Your task to perform on an android device: What is the price of a 12' ladder at Home Depot? Image 0: 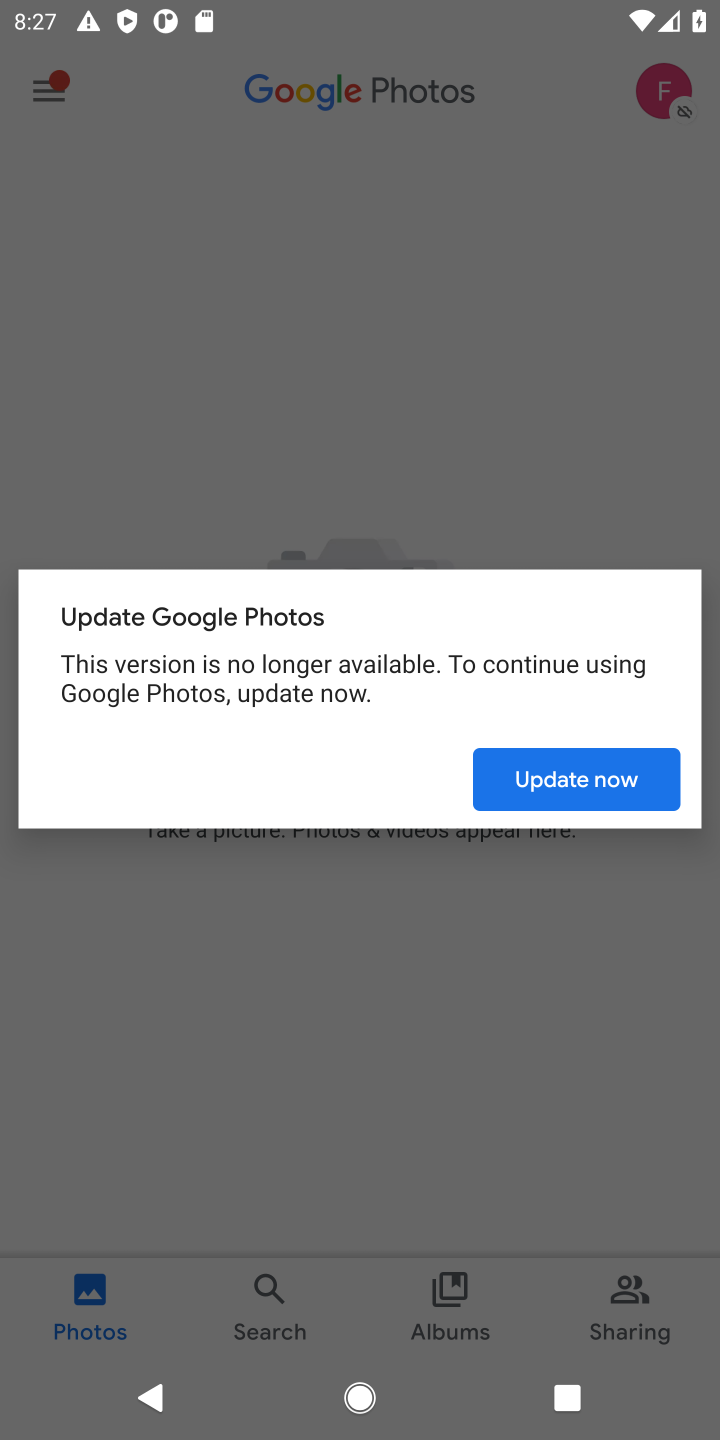
Step 0: press home button
Your task to perform on an android device: What is the price of a 12' ladder at Home Depot? Image 1: 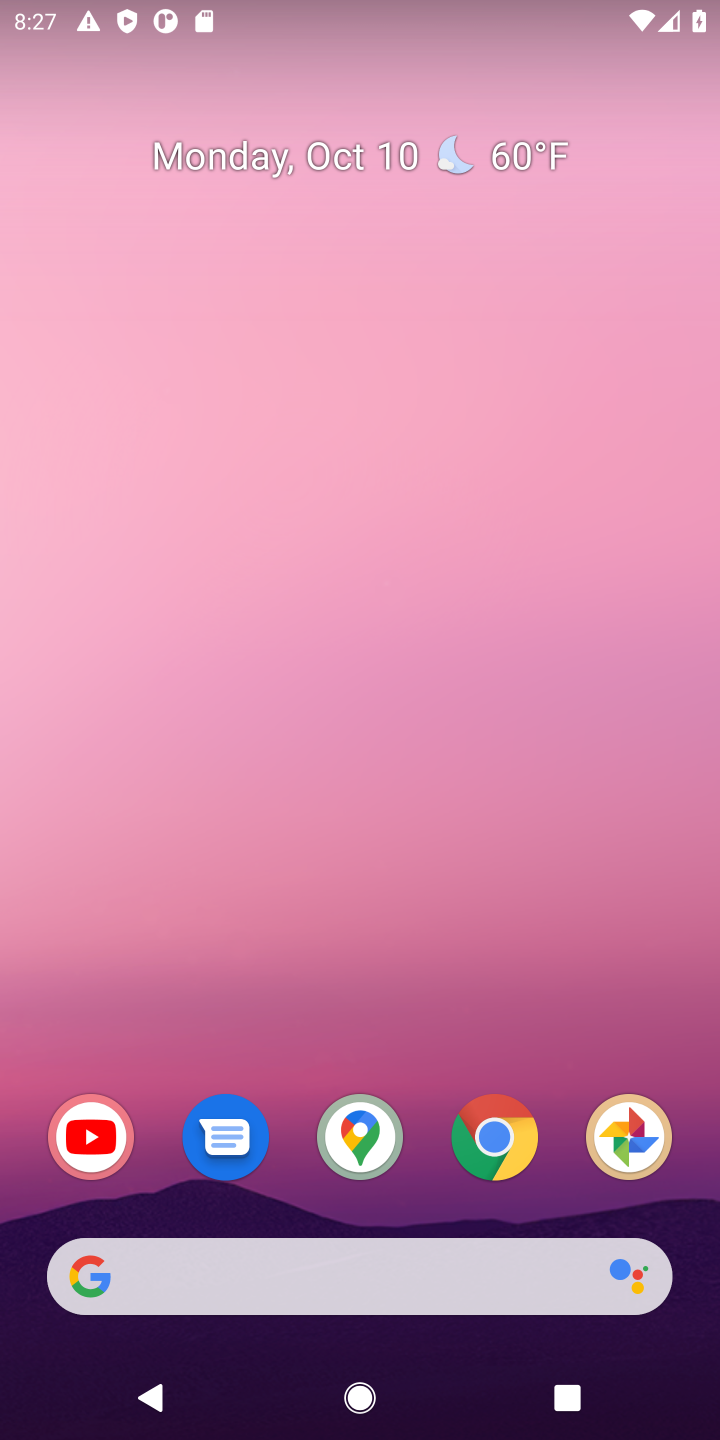
Step 1: click (494, 1138)
Your task to perform on an android device: What is the price of a 12' ladder at Home Depot? Image 2: 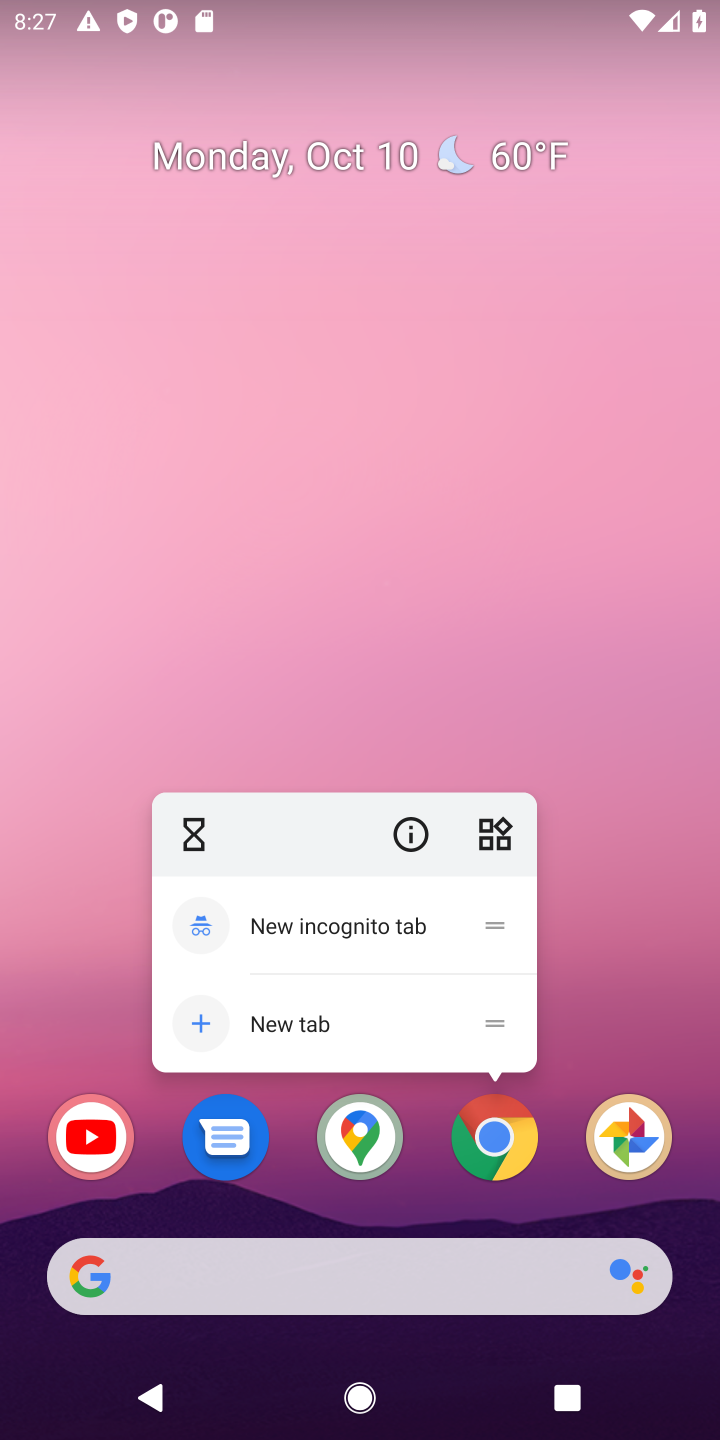
Step 2: click (494, 1138)
Your task to perform on an android device: What is the price of a 12' ladder at Home Depot? Image 3: 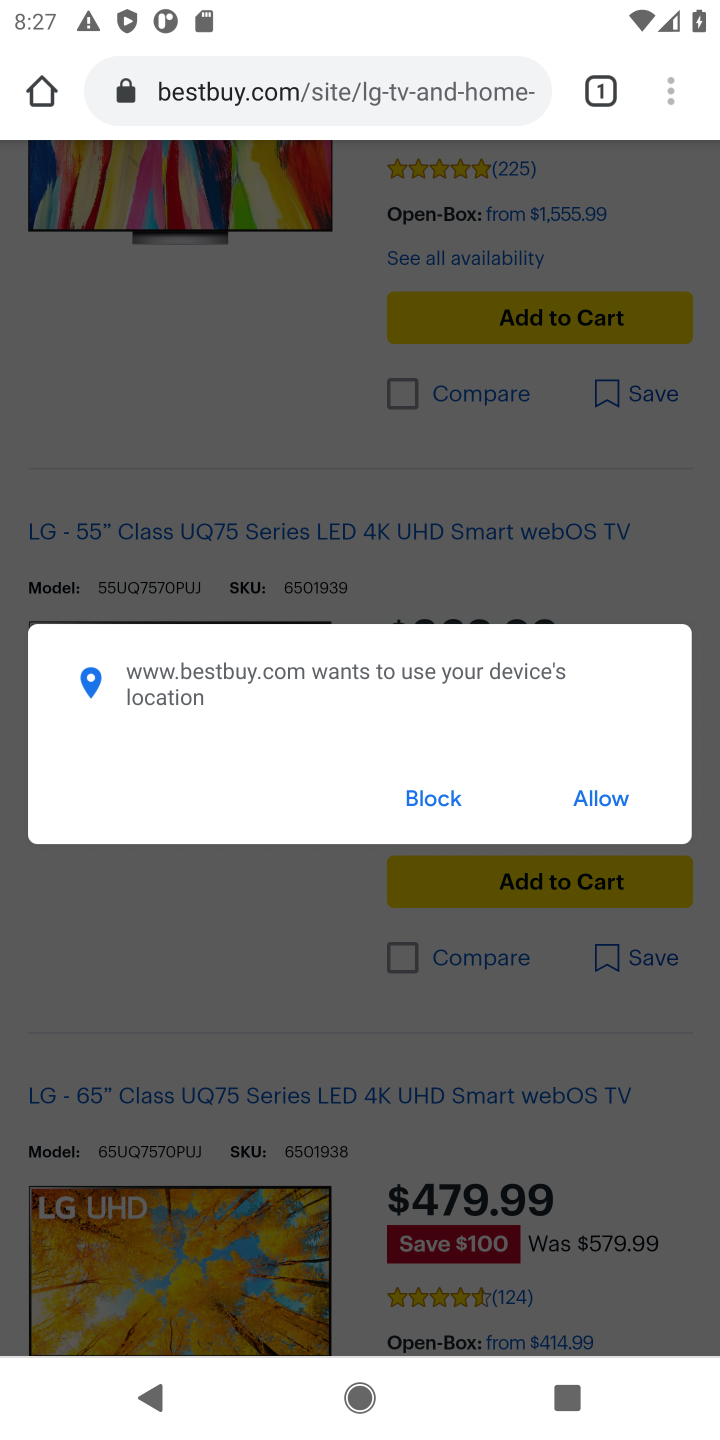
Step 3: click (350, 60)
Your task to perform on an android device: What is the price of a 12' ladder at Home Depot? Image 4: 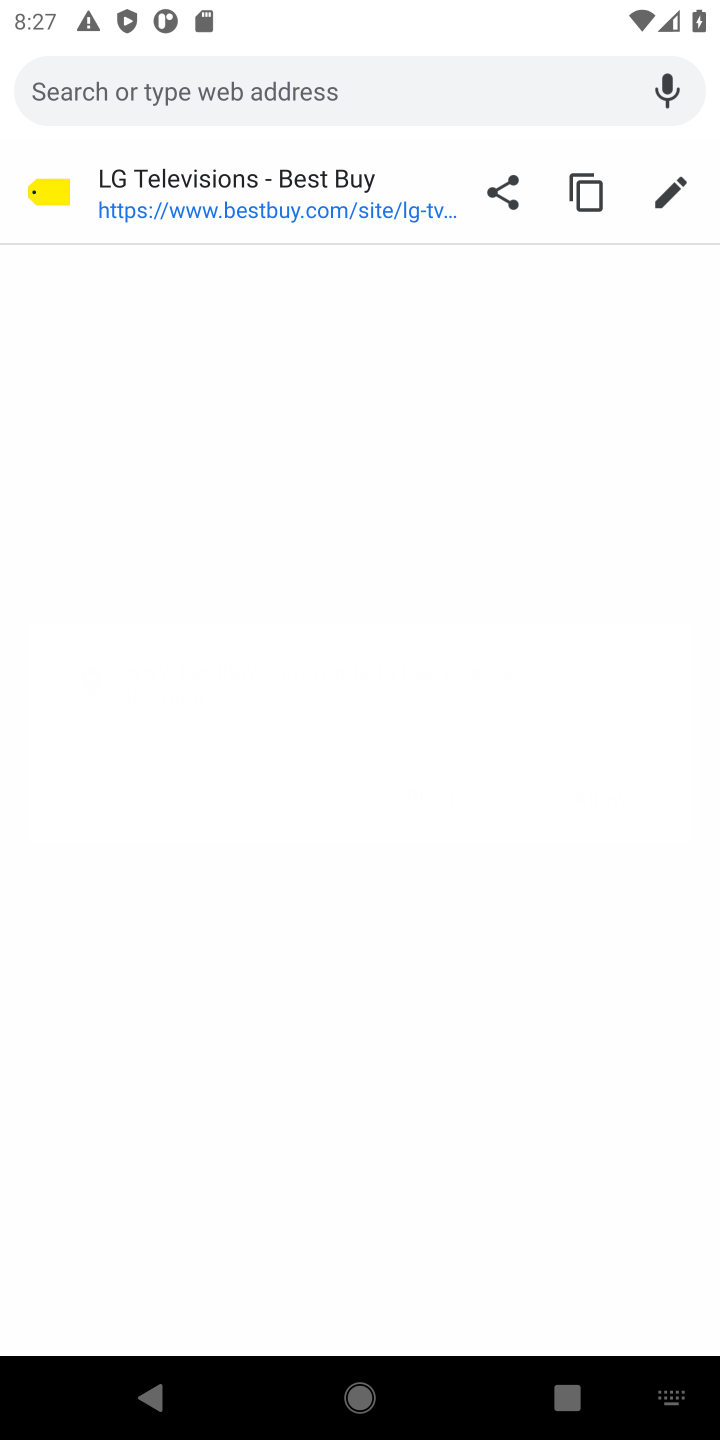
Step 4: type "Home depot"
Your task to perform on an android device: What is the price of a 12' ladder at Home Depot? Image 5: 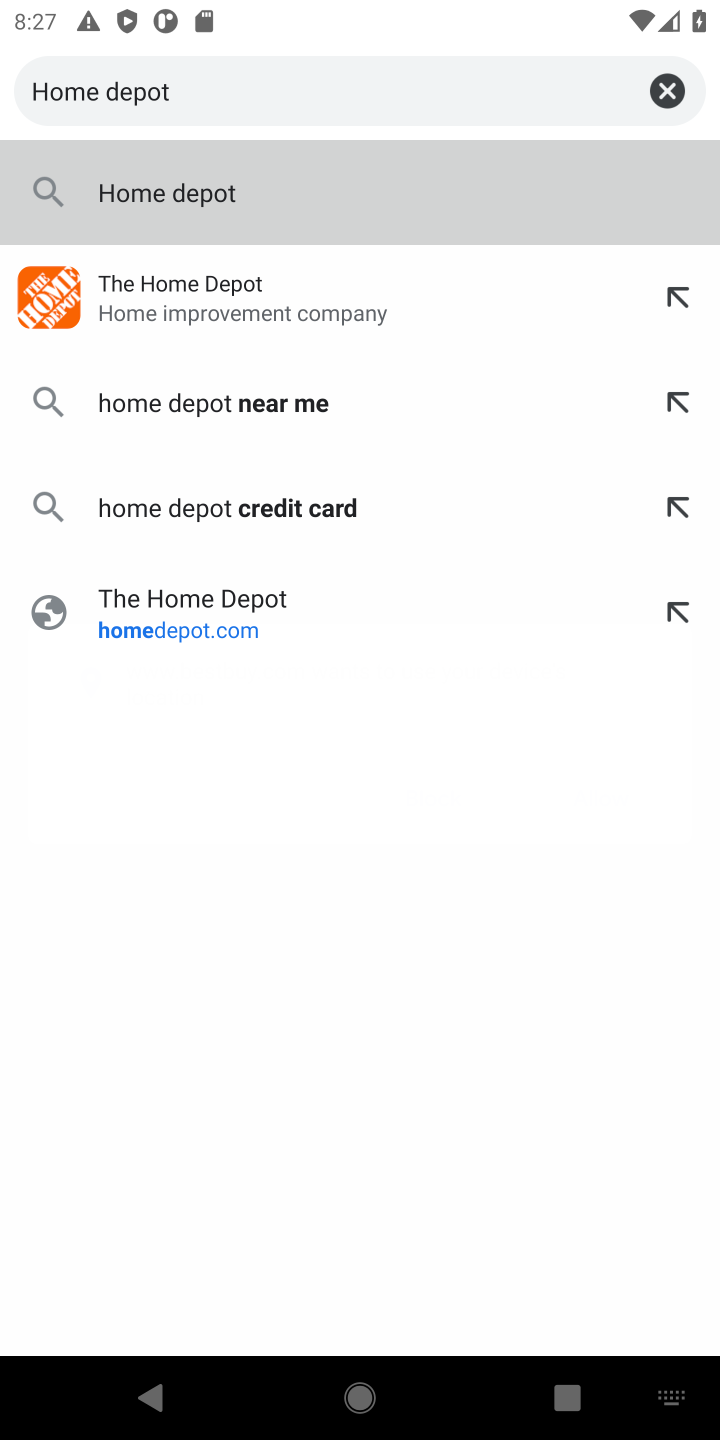
Step 5: click (186, 275)
Your task to perform on an android device: What is the price of a 12' ladder at Home Depot? Image 6: 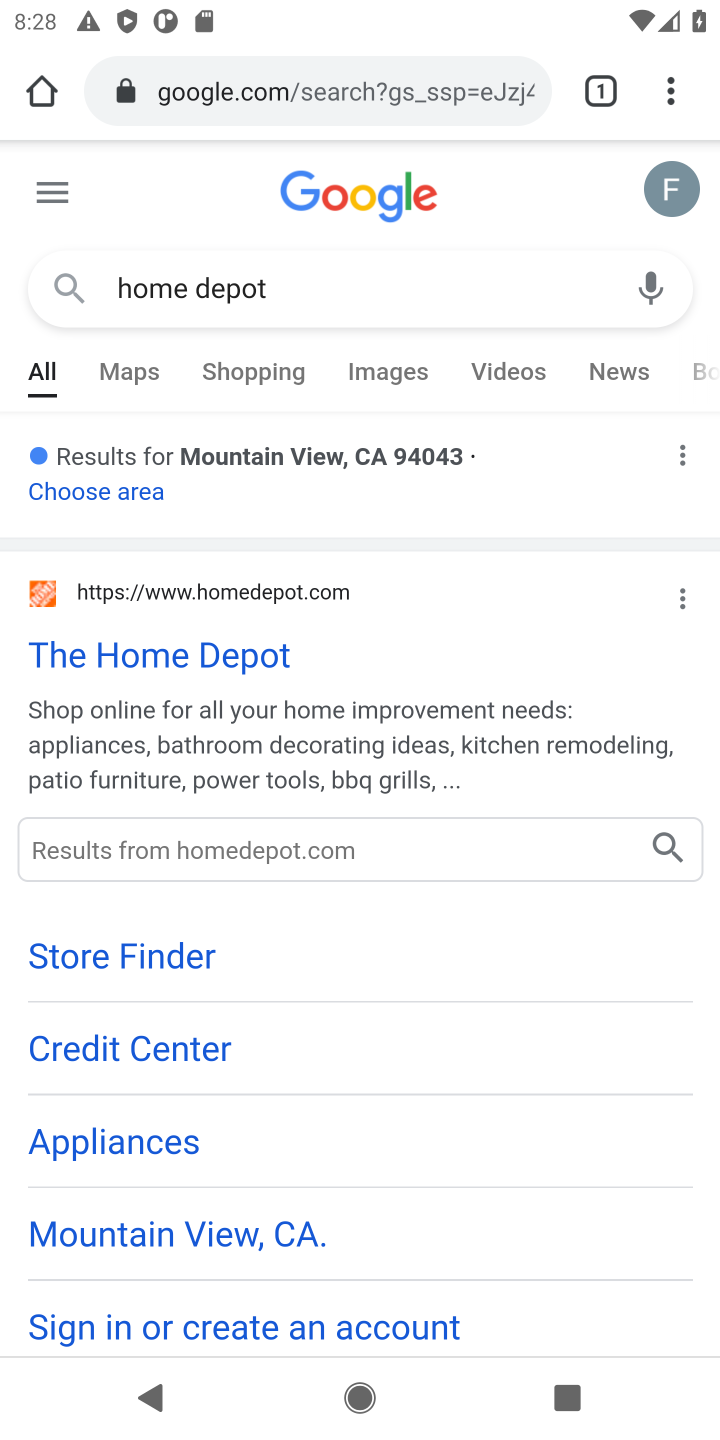
Step 6: click (149, 654)
Your task to perform on an android device: What is the price of a 12' ladder at Home Depot? Image 7: 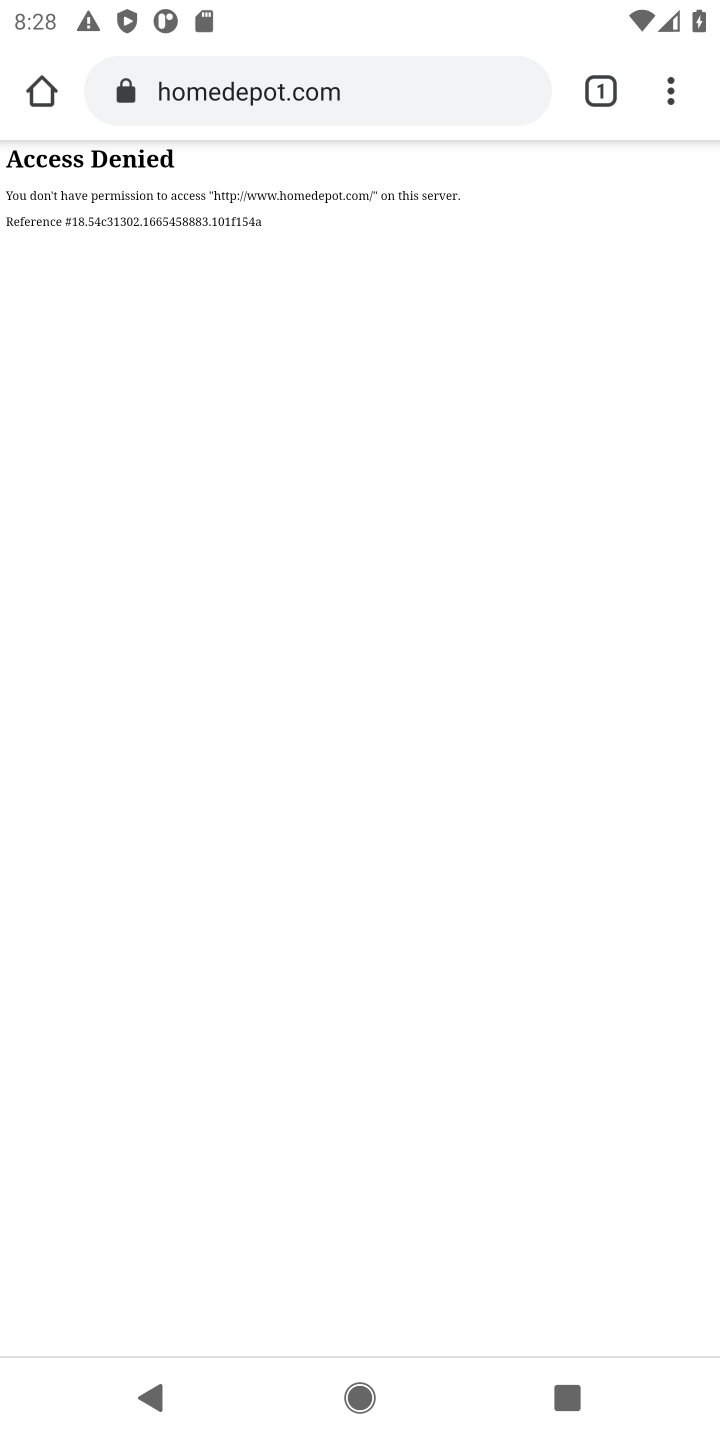
Step 7: task complete